Your task to perform on an android device: Check the news Image 0: 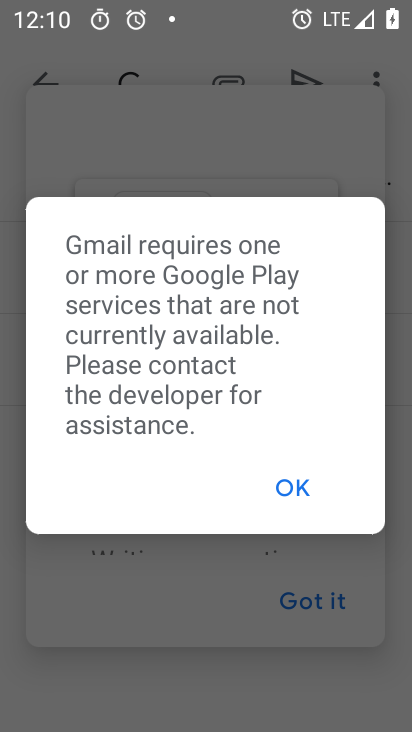
Step 0: press home button
Your task to perform on an android device: Check the news Image 1: 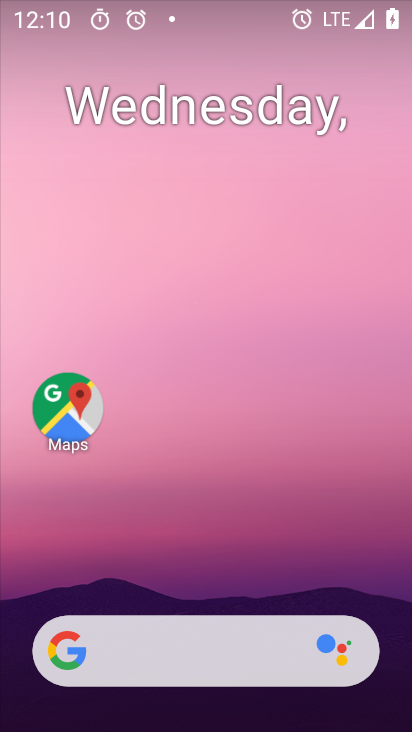
Step 1: drag from (199, 641) to (255, 244)
Your task to perform on an android device: Check the news Image 2: 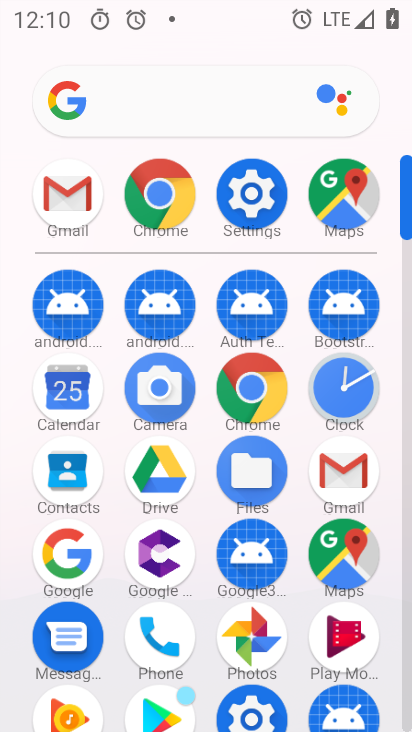
Step 2: click (74, 568)
Your task to perform on an android device: Check the news Image 3: 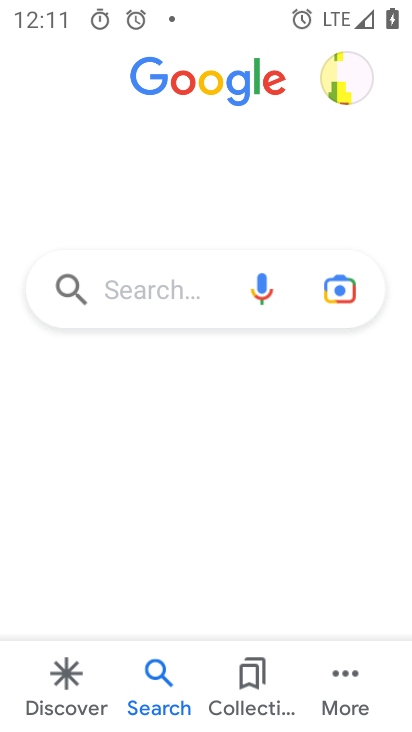
Step 3: drag from (295, 522) to (290, 444)
Your task to perform on an android device: Check the news Image 4: 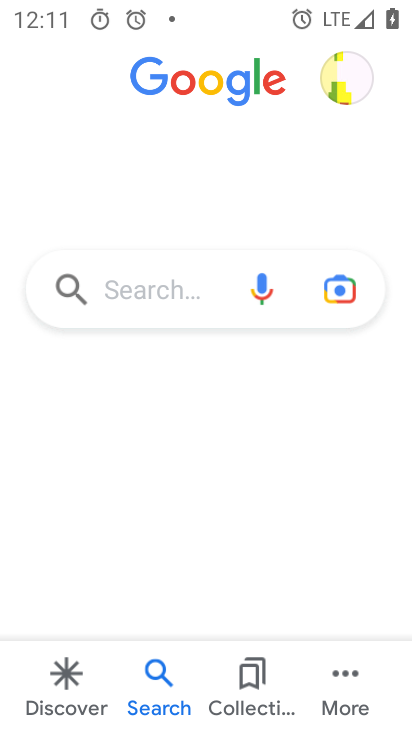
Step 4: click (53, 684)
Your task to perform on an android device: Check the news Image 5: 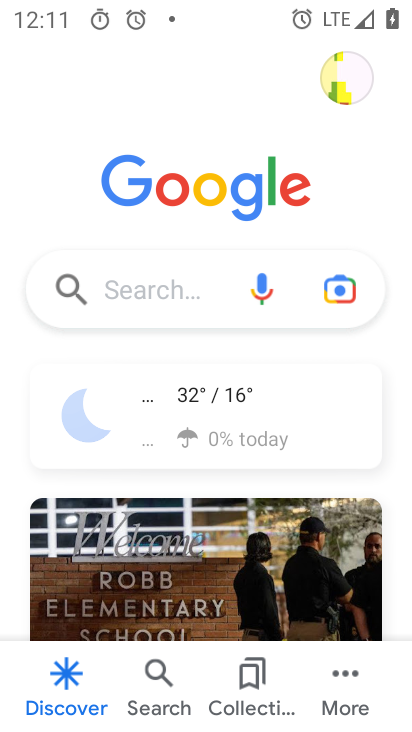
Step 5: task complete